Your task to perform on an android device: see creations saved in the google photos Image 0: 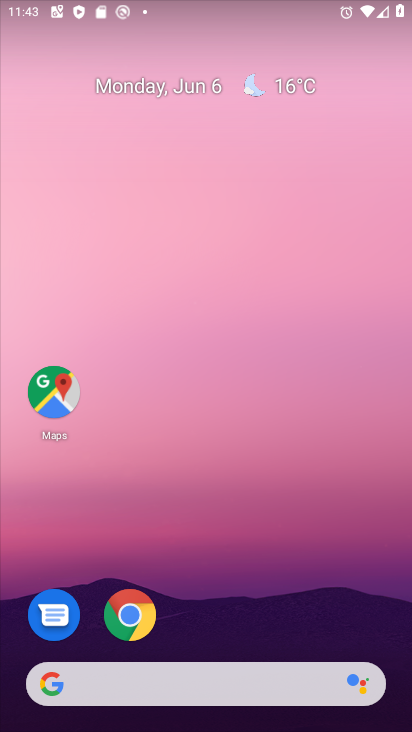
Step 0: drag from (233, 635) to (277, 144)
Your task to perform on an android device: see creations saved in the google photos Image 1: 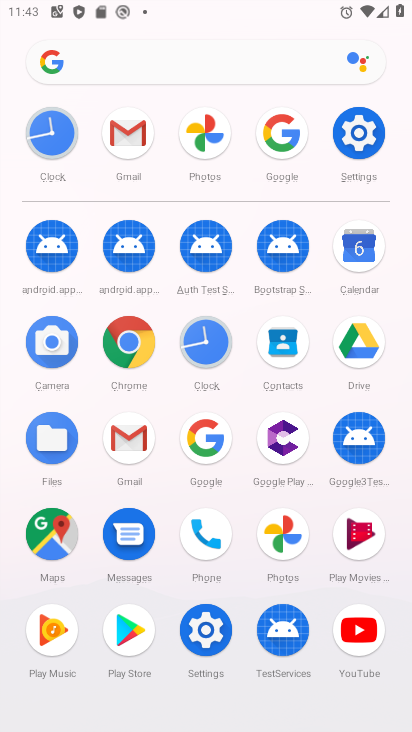
Step 1: click (283, 528)
Your task to perform on an android device: see creations saved in the google photos Image 2: 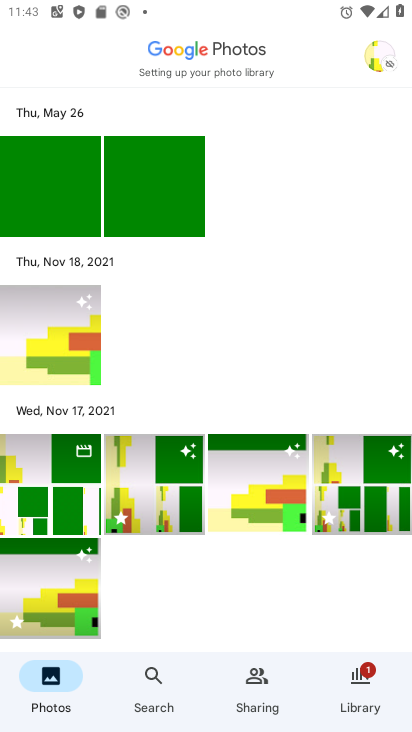
Step 2: click (147, 680)
Your task to perform on an android device: see creations saved in the google photos Image 3: 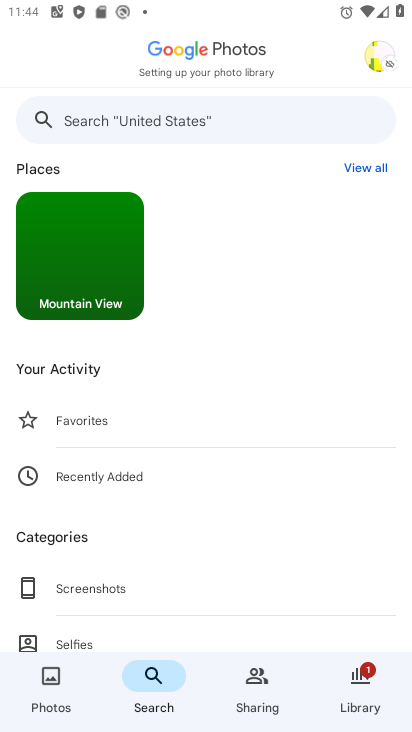
Step 3: drag from (128, 579) to (174, 148)
Your task to perform on an android device: see creations saved in the google photos Image 4: 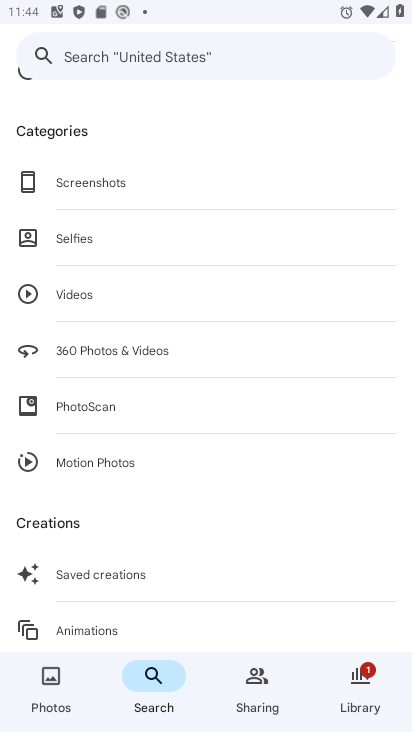
Step 4: click (149, 576)
Your task to perform on an android device: see creations saved in the google photos Image 5: 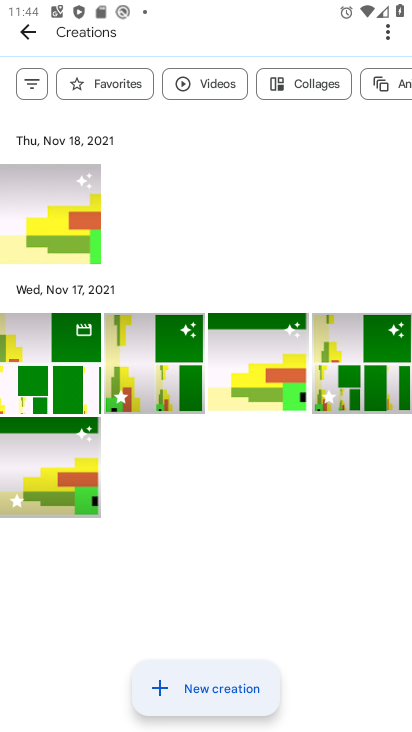
Step 5: task complete